Your task to perform on an android device: Open Google Chrome and open the bookmarks view Image 0: 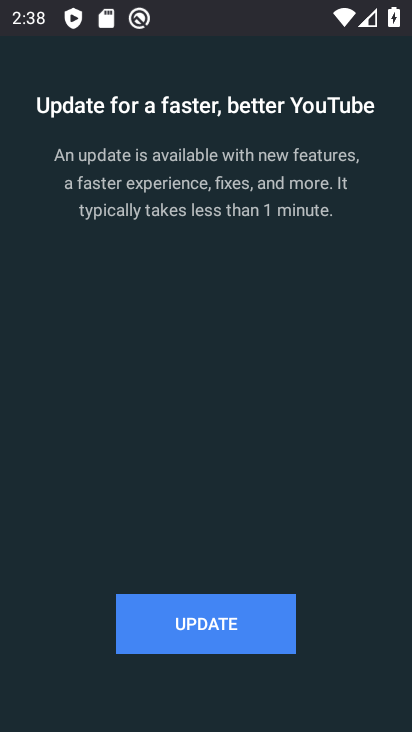
Step 0: press back button
Your task to perform on an android device: Open Google Chrome and open the bookmarks view Image 1: 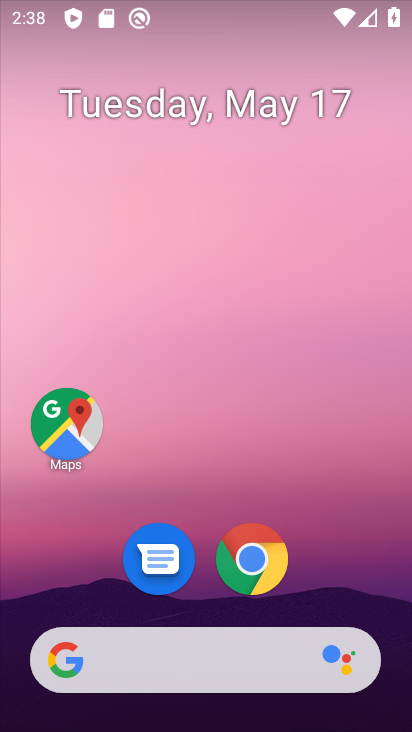
Step 1: click (269, 578)
Your task to perform on an android device: Open Google Chrome and open the bookmarks view Image 2: 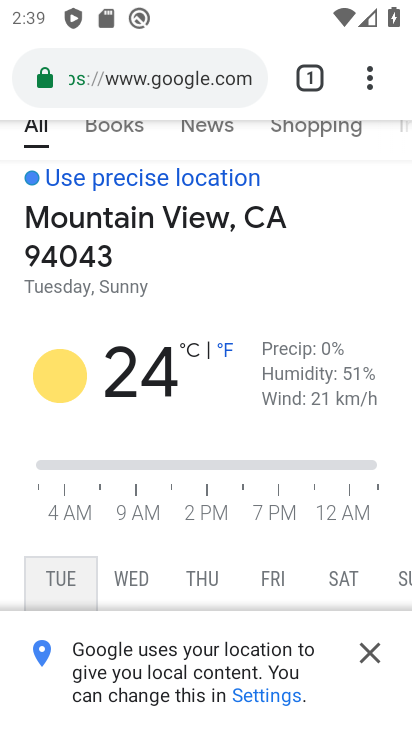
Step 2: click (375, 104)
Your task to perform on an android device: Open Google Chrome and open the bookmarks view Image 3: 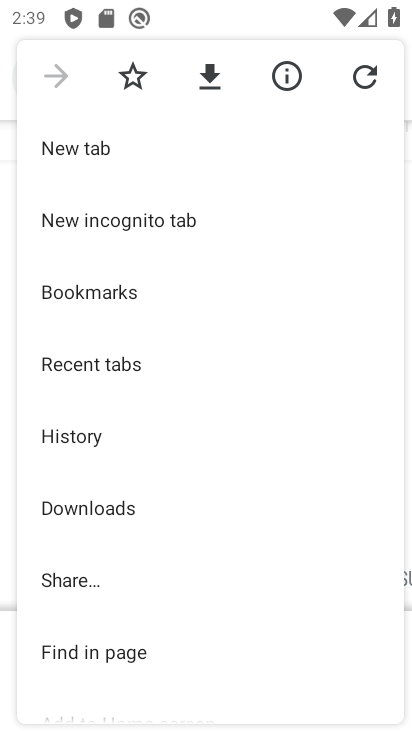
Step 3: click (149, 314)
Your task to perform on an android device: Open Google Chrome and open the bookmarks view Image 4: 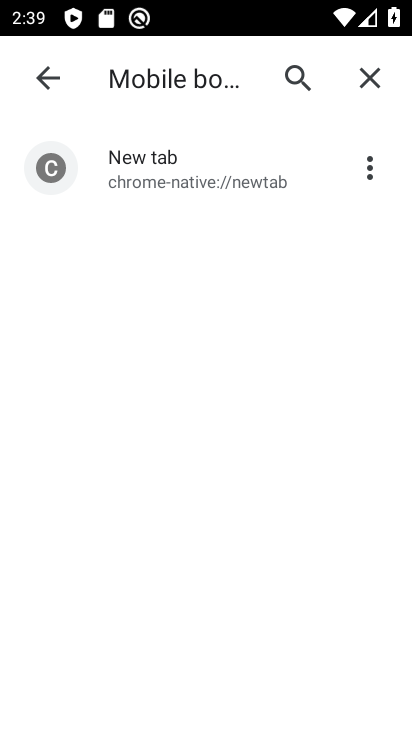
Step 4: task complete